Your task to perform on an android device: What's on my calendar tomorrow? Image 0: 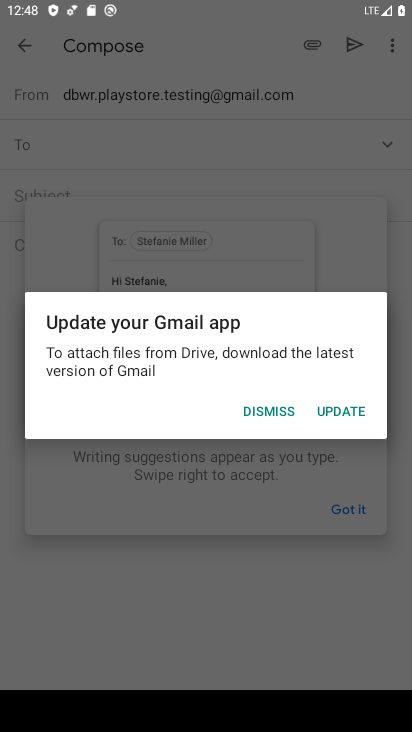
Step 0: press home button
Your task to perform on an android device: What's on my calendar tomorrow? Image 1: 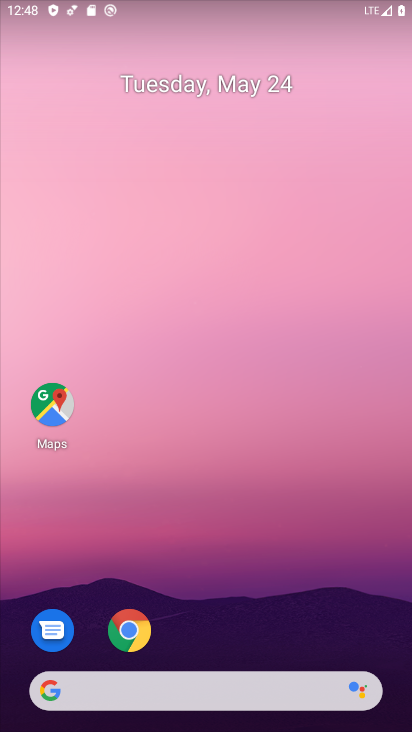
Step 1: drag from (256, 604) to (247, 232)
Your task to perform on an android device: What's on my calendar tomorrow? Image 2: 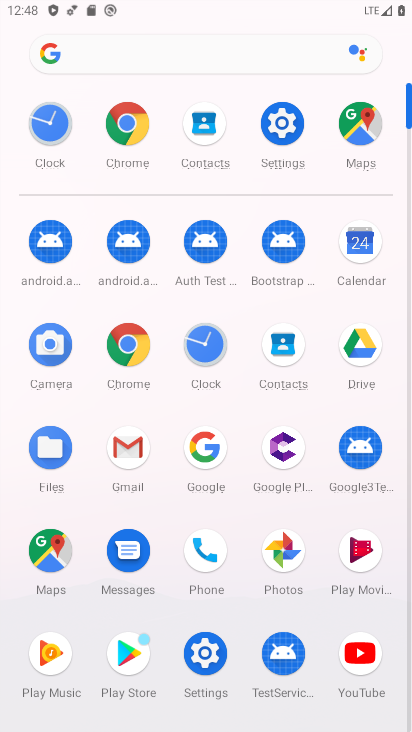
Step 2: click (371, 236)
Your task to perform on an android device: What's on my calendar tomorrow? Image 3: 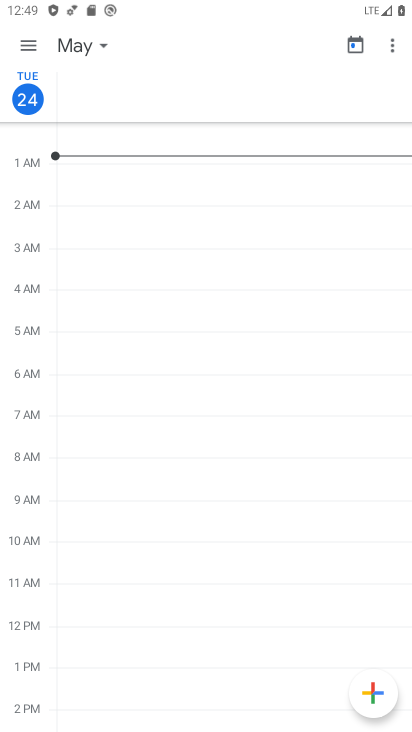
Step 3: press home button
Your task to perform on an android device: What's on my calendar tomorrow? Image 4: 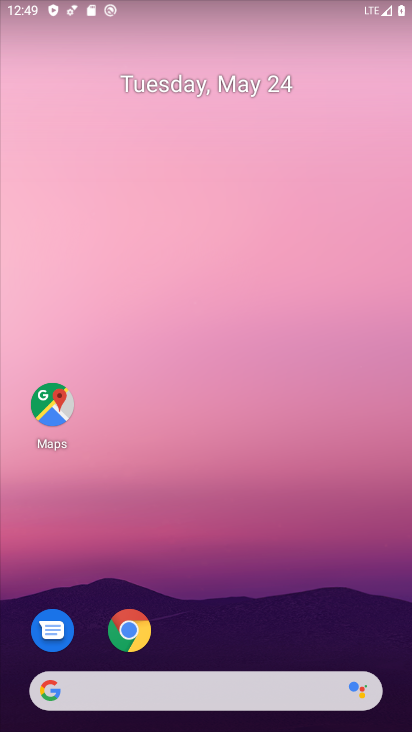
Step 4: drag from (261, 440) to (239, 80)
Your task to perform on an android device: What's on my calendar tomorrow? Image 5: 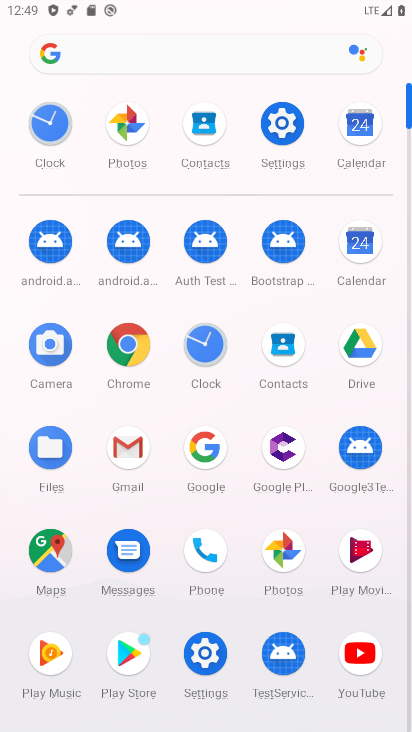
Step 5: click (360, 240)
Your task to perform on an android device: What's on my calendar tomorrow? Image 6: 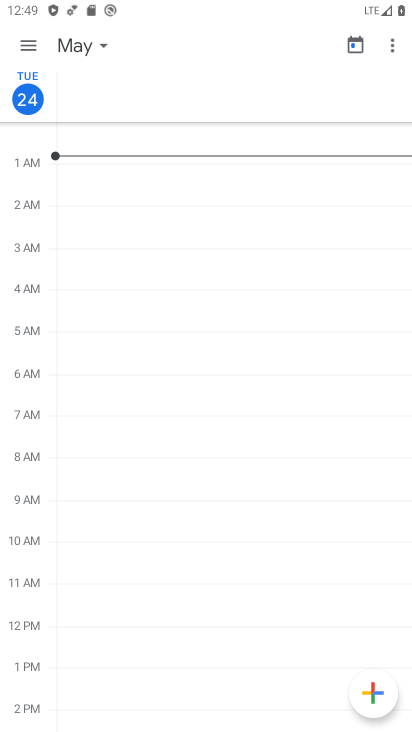
Step 6: click (63, 41)
Your task to perform on an android device: What's on my calendar tomorrow? Image 7: 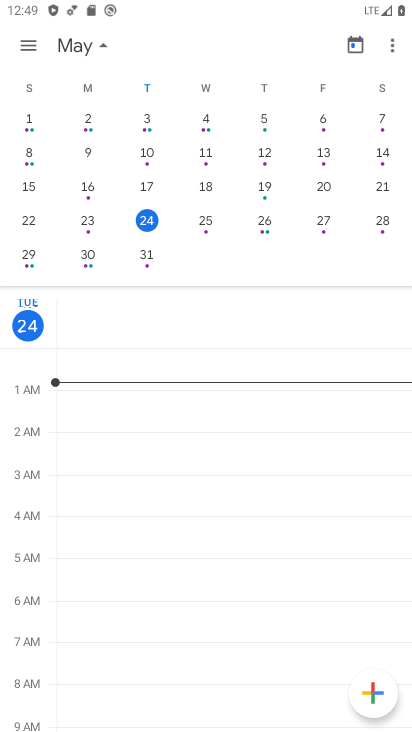
Step 7: click (202, 221)
Your task to perform on an android device: What's on my calendar tomorrow? Image 8: 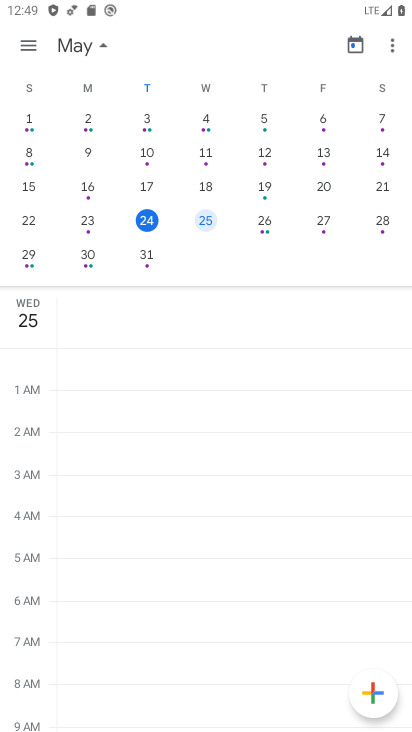
Step 8: task complete